Your task to perform on an android device: Go to notification settings Image 0: 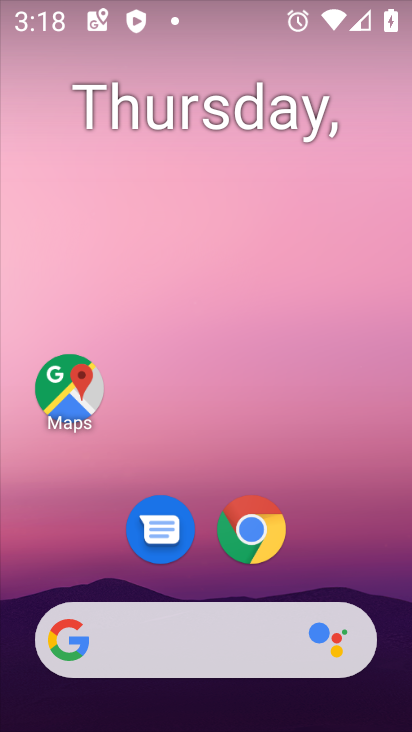
Step 0: drag from (325, 412) to (310, 53)
Your task to perform on an android device: Go to notification settings Image 1: 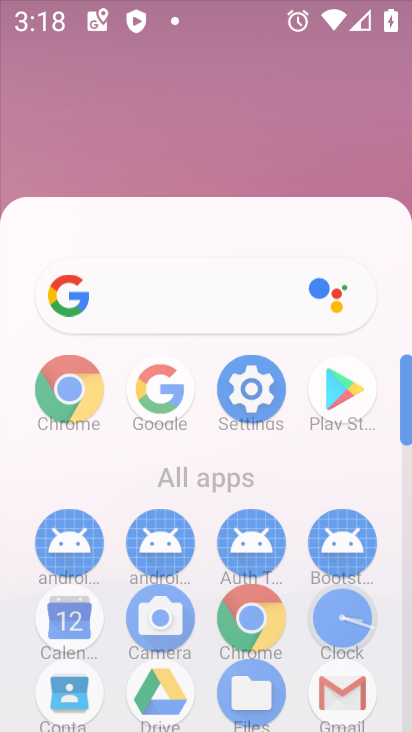
Step 1: drag from (310, 514) to (323, 15)
Your task to perform on an android device: Go to notification settings Image 2: 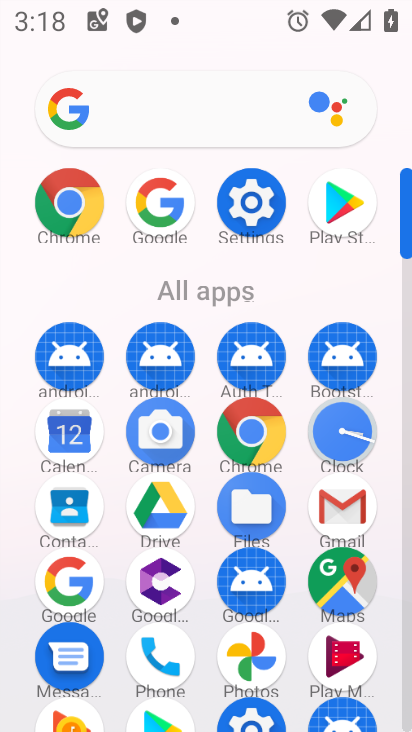
Step 2: drag from (301, 420) to (261, 6)
Your task to perform on an android device: Go to notification settings Image 3: 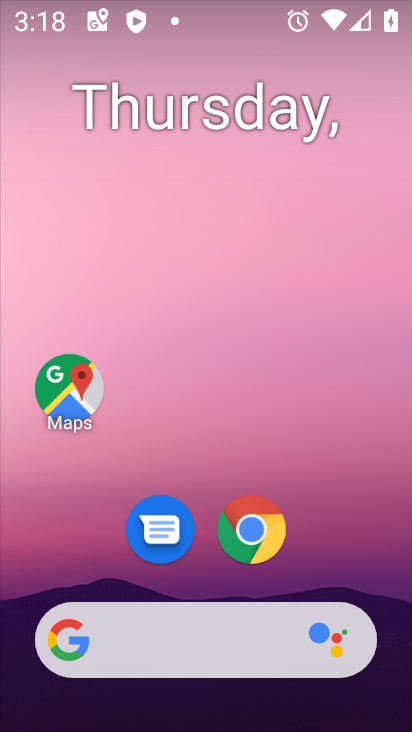
Step 3: drag from (335, 528) to (232, 7)
Your task to perform on an android device: Go to notification settings Image 4: 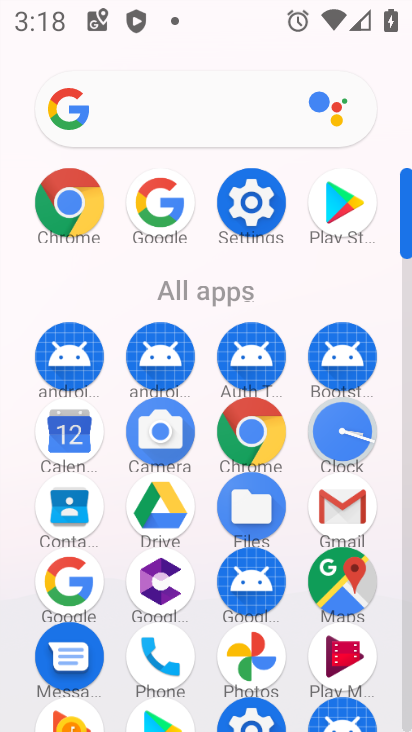
Step 4: click (249, 203)
Your task to perform on an android device: Go to notification settings Image 5: 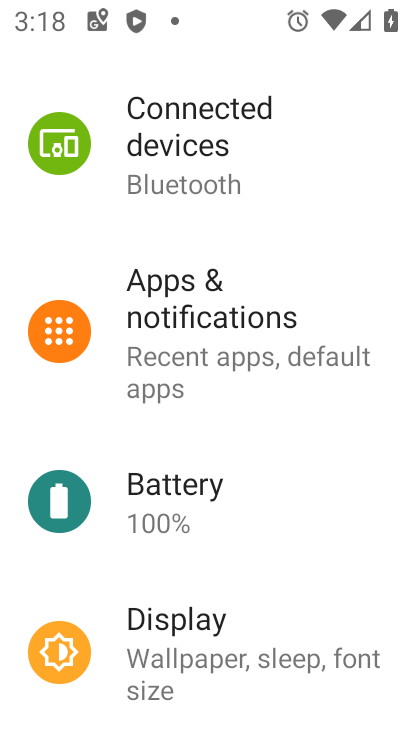
Step 5: click (213, 320)
Your task to perform on an android device: Go to notification settings Image 6: 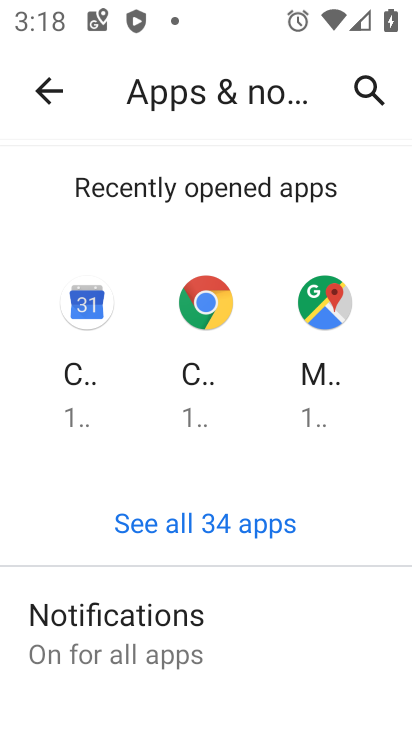
Step 6: click (123, 611)
Your task to perform on an android device: Go to notification settings Image 7: 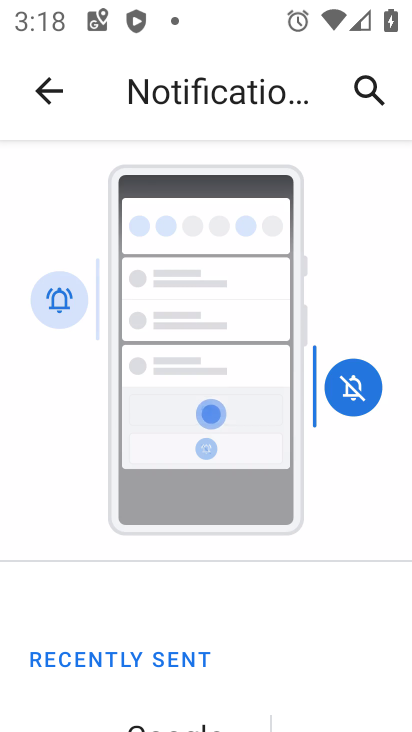
Step 7: task complete